Your task to perform on an android device: Open Youtube and go to "Your channel" Image 0: 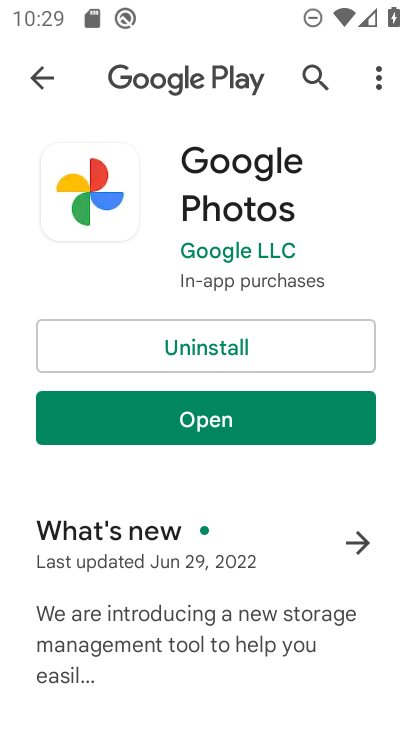
Step 0: press home button
Your task to perform on an android device: Open Youtube and go to "Your channel" Image 1: 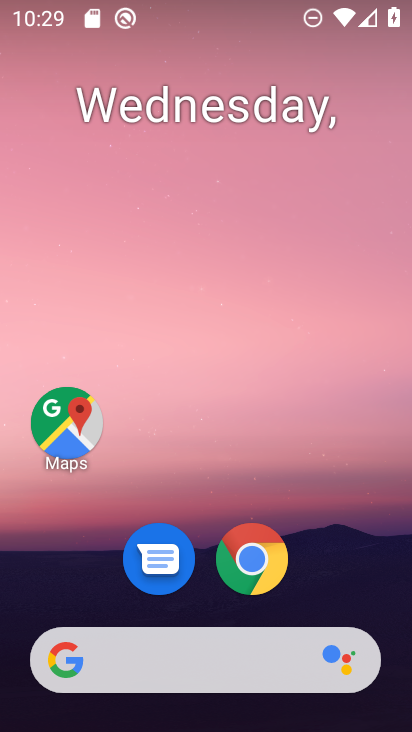
Step 1: drag from (364, 573) to (371, 253)
Your task to perform on an android device: Open Youtube and go to "Your channel" Image 2: 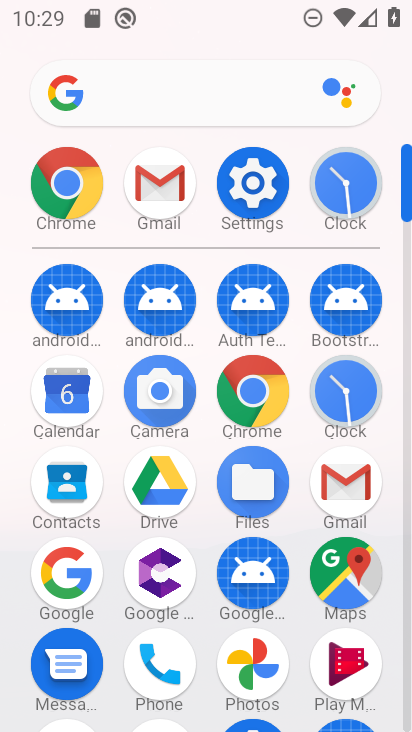
Step 2: drag from (388, 645) to (393, 543)
Your task to perform on an android device: Open Youtube and go to "Your channel" Image 3: 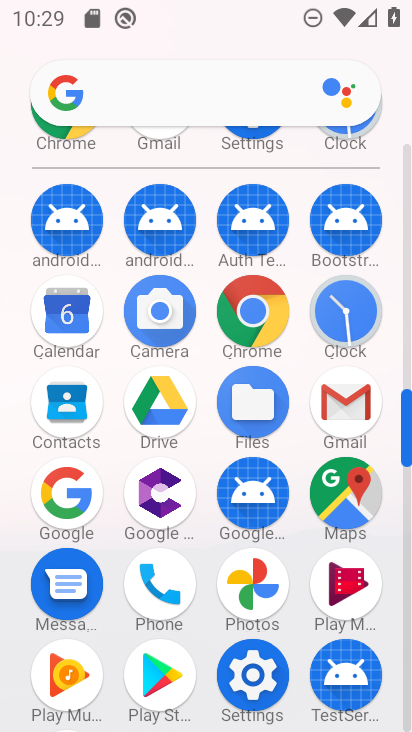
Step 3: drag from (385, 637) to (383, 523)
Your task to perform on an android device: Open Youtube and go to "Your channel" Image 4: 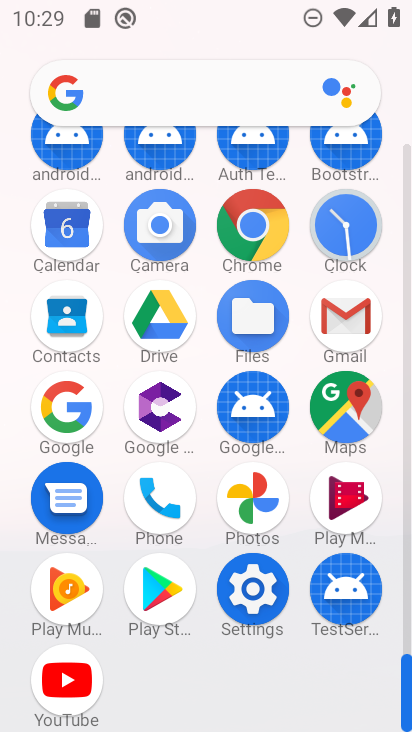
Step 4: click (80, 678)
Your task to perform on an android device: Open Youtube and go to "Your channel" Image 5: 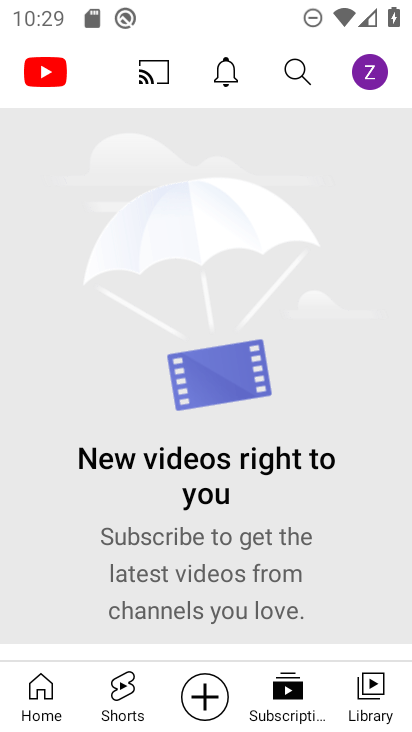
Step 5: click (368, 77)
Your task to perform on an android device: Open Youtube and go to "Your channel" Image 6: 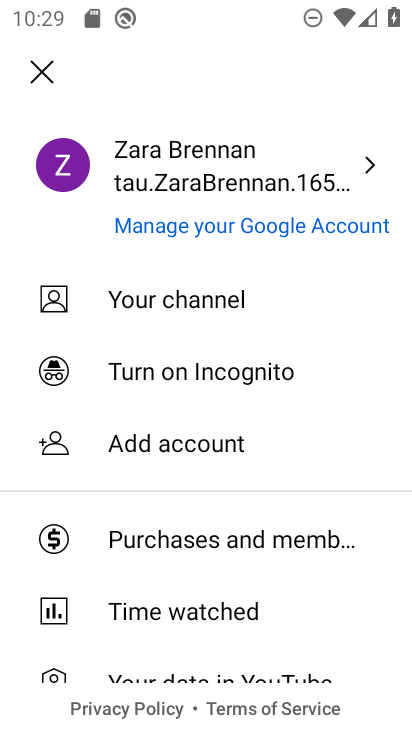
Step 6: click (252, 297)
Your task to perform on an android device: Open Youtube and go to "Your channel" Image 7: 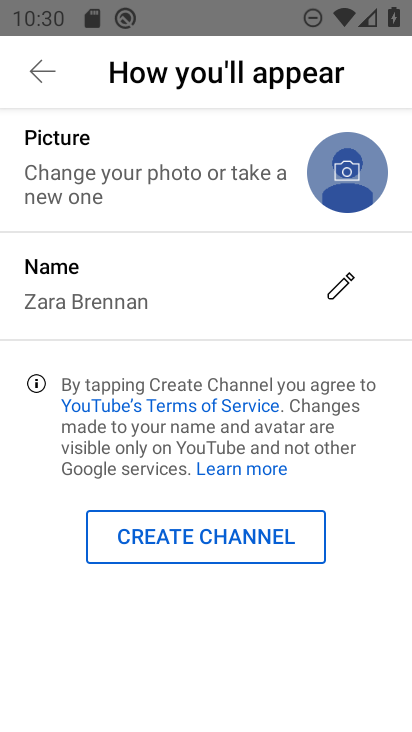
Step 7: task complete